Your task to perform on an android device: What is the recent news? Image 0: 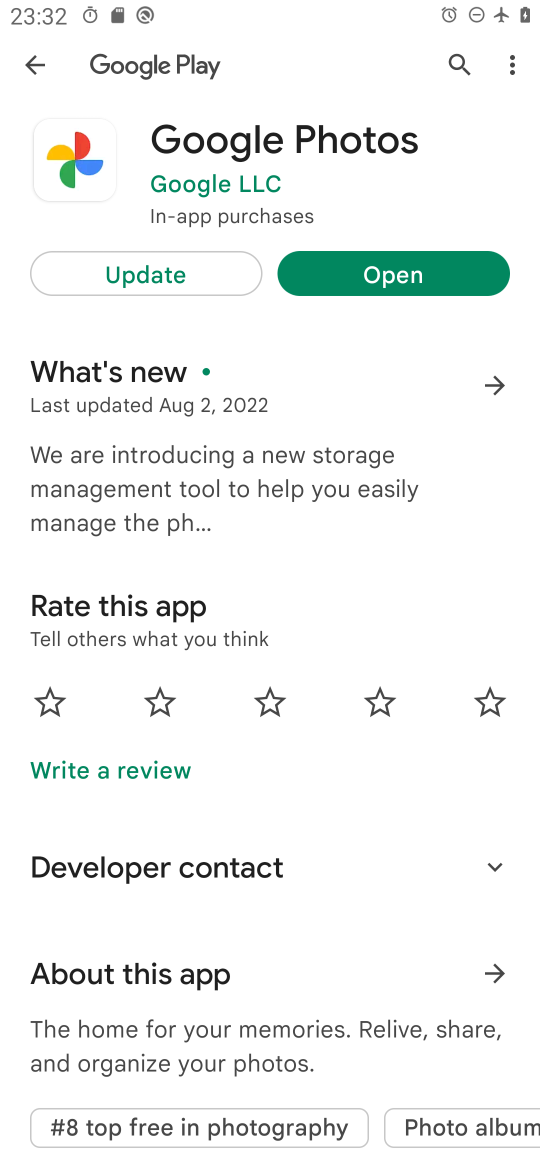
Step 0: press home button
Your task to perform on an android device: What is the recent news? Image 1: 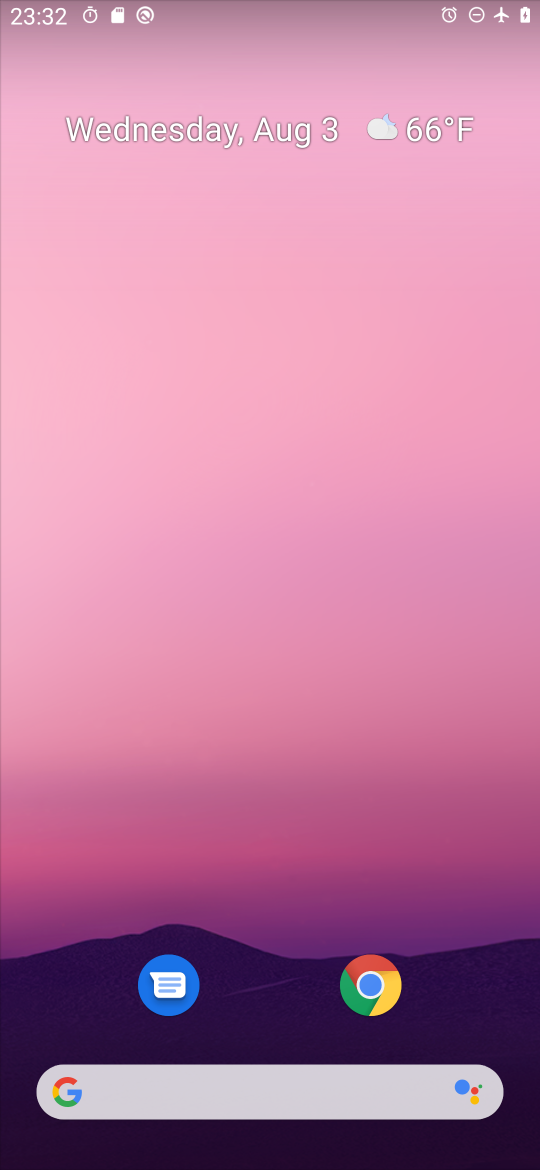
Step 1: drag from (278, 936) to (290, 393)
Your task to perform on an android device: What is the recent news? Image 2: 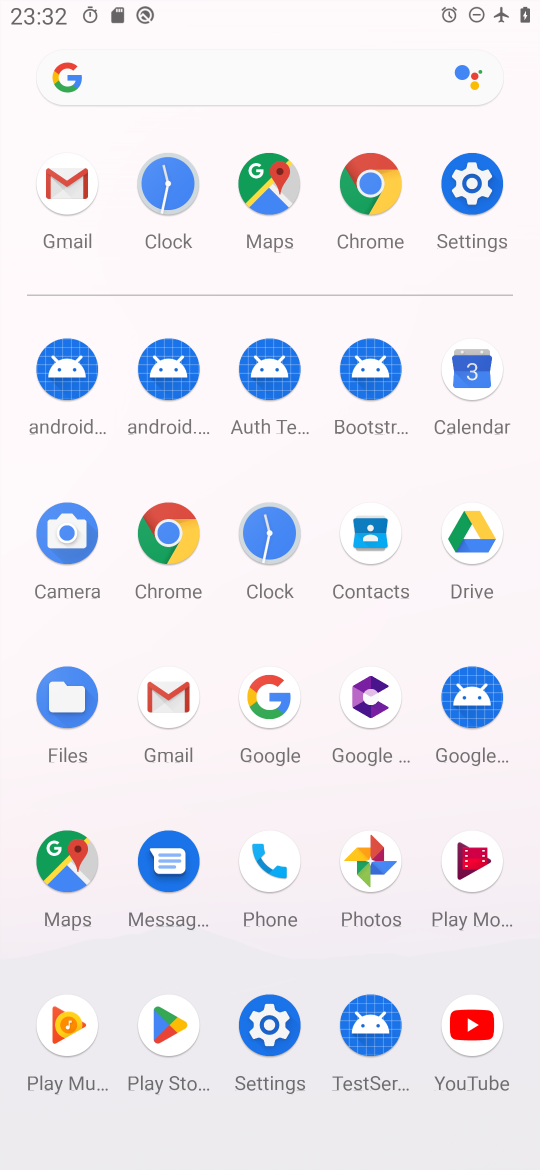
Step 2: click (287, 686)
Your task to perform on an android device: What is the recent news? Image 3: 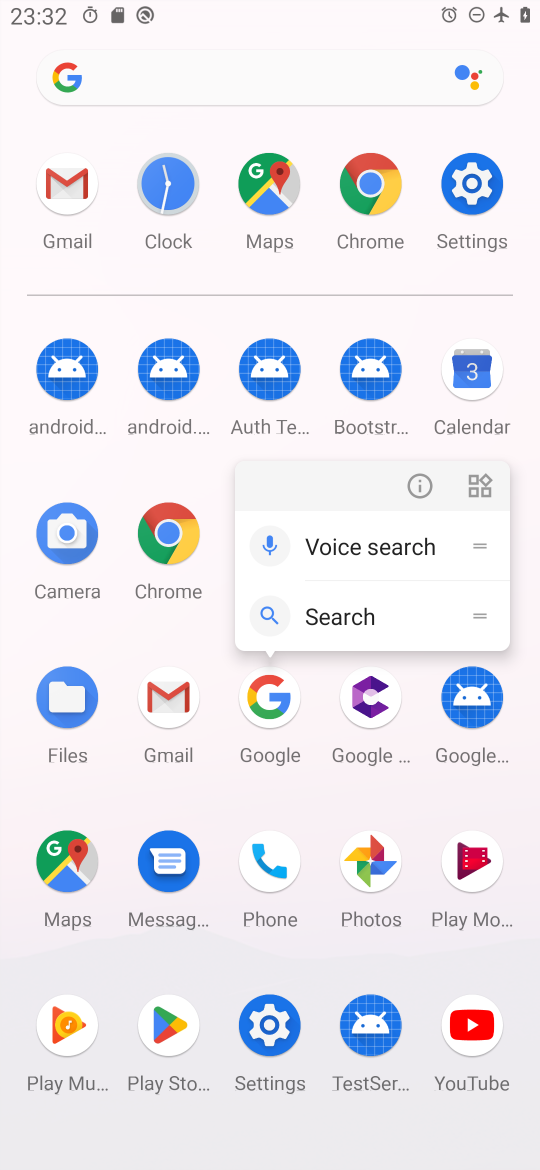
Step 3: click (272, 721)
Your task to perform on an android device: What is the recent news? Image 4: 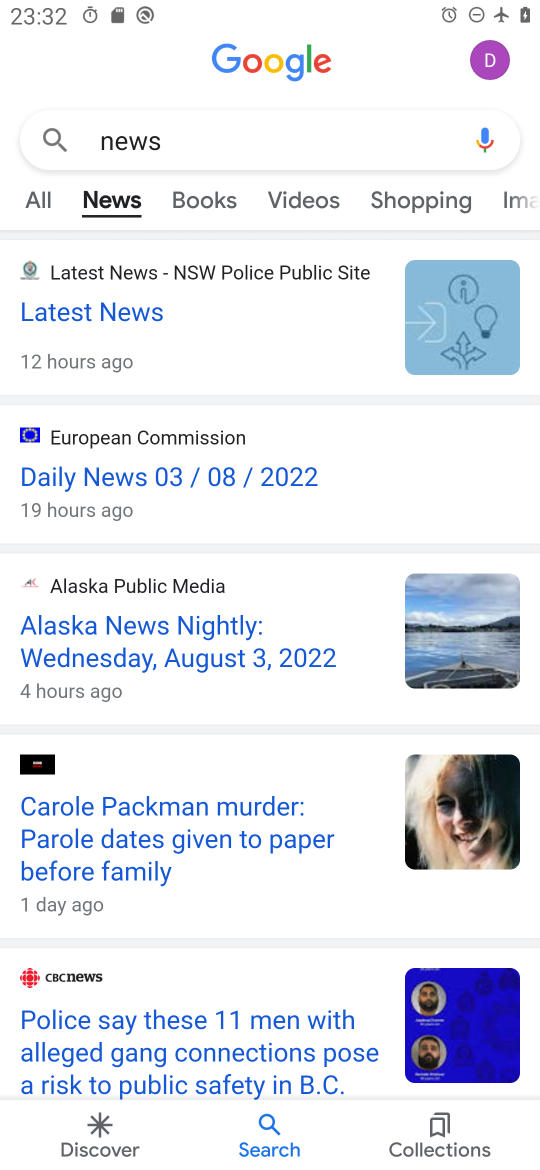
Step 4: task complete